Your task to perform on an android device: turn notification dots on Image 0: 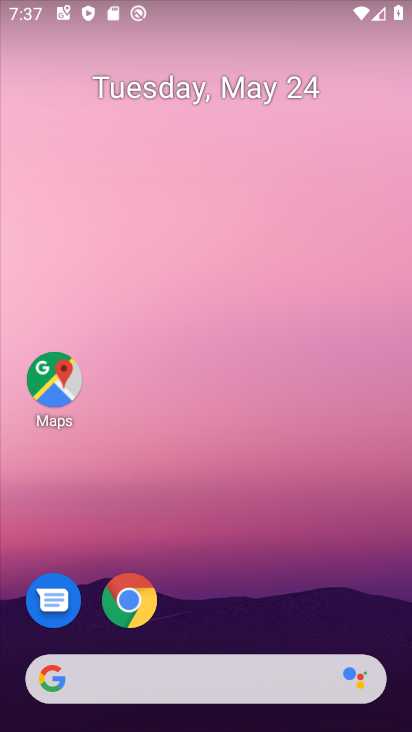
Step 0: drag from (242, 583) to (281, 77)
Your task to perform on an android device: turn notification dots on Image 1: 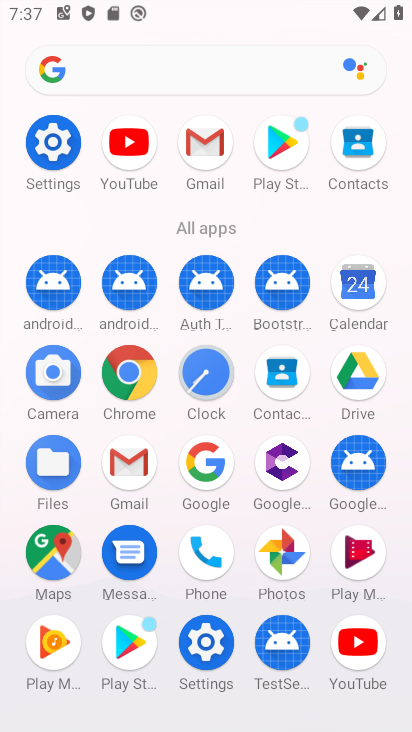
Step 1: click (64, 144)
Your task to perform on an android device: turn notification dots on Image 2: 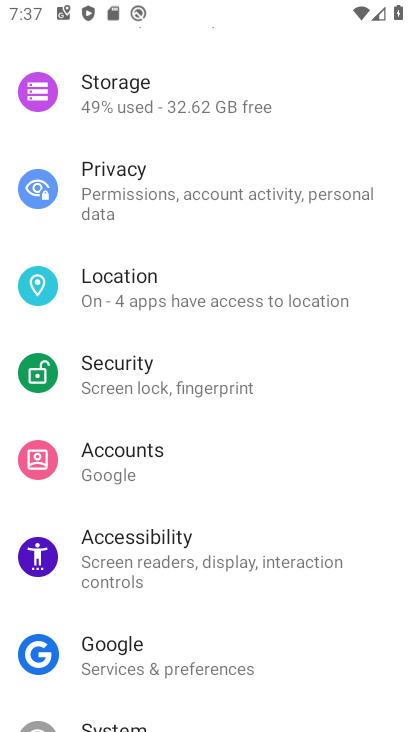
Step 2: drag from (246, 209) to (258, 646)
Your task to perform on an android device: turn notification dots on Image 3: 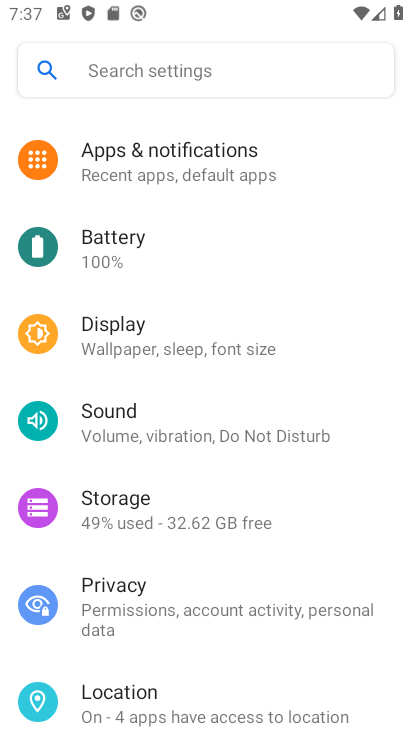
Step 3: click (212, 175)
Your task to perform on an android device: turn notification dots on Image 4: 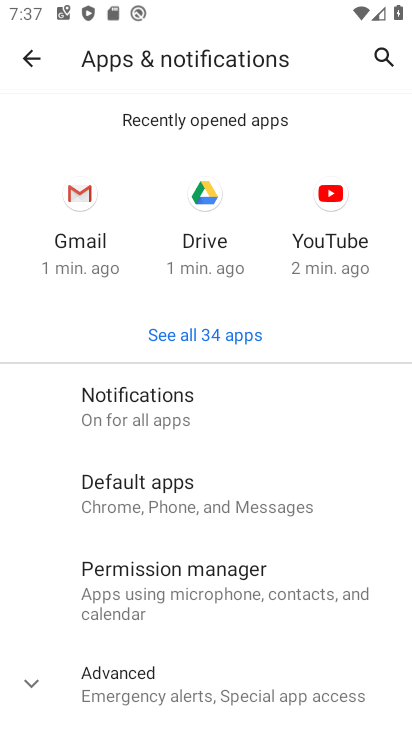
Step 4: click (136, 417)
Your task to perform on an android device: turn notification dots on Image 5: 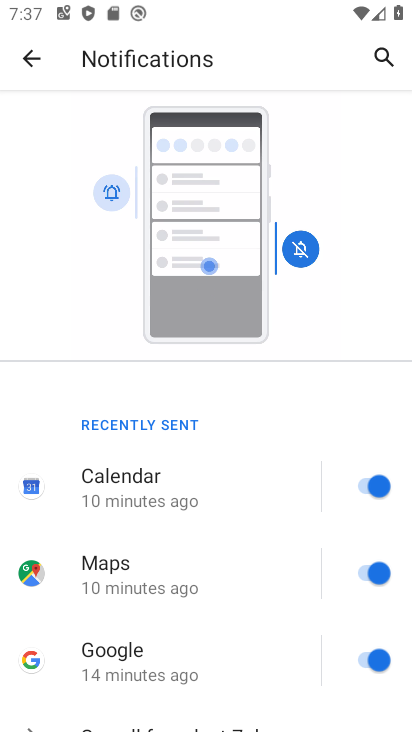
Step 5: drag from (210, 654) to (297, 160)
Your task to perform on an android device: turn notification dots on Image 6: 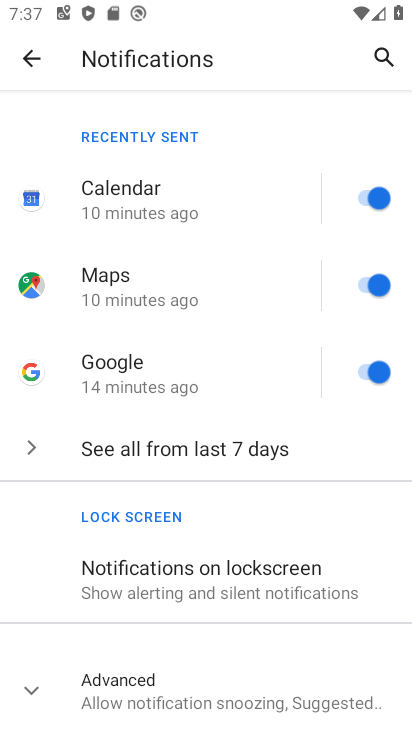
Step 6: click (154, 682)
Your task to perform on an android device: turn notification dots on Image 7: 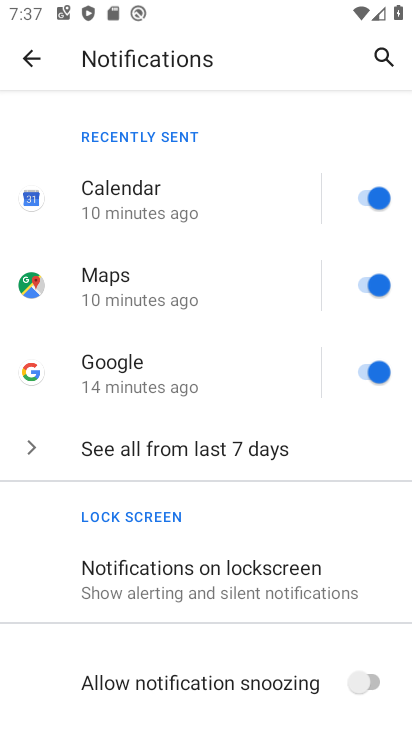
Step 7: task complete